Your task to perform on an android device: turn on the 12-hour format for clock Image 0: 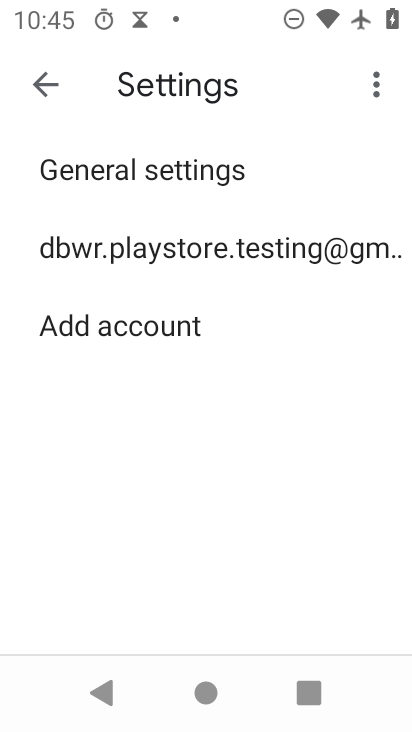
Step 0: click (46, 66)
Your task to perform on an android device: turn on the 12-hour format for clock Image 1: 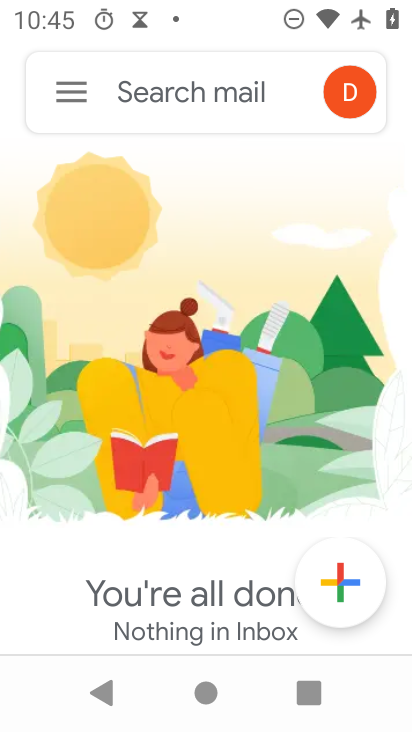
Step 1: press back button
Your task to perform on an android device: turn on the 12-hour format for clock Image 2: 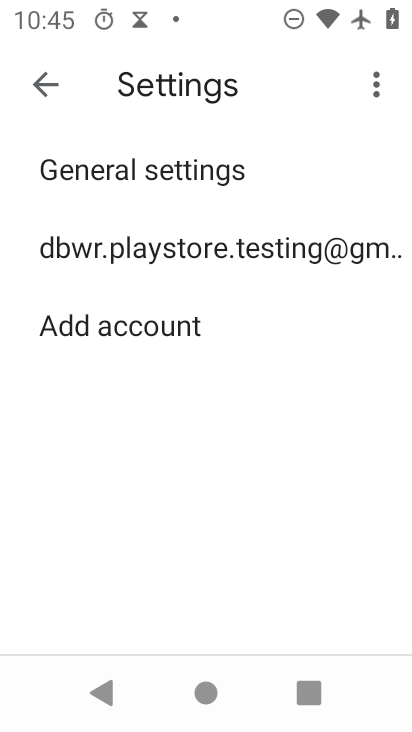
Step 2: press home button
Your task to perform on an android device: turn on the 12-hour format for clock Image 3: 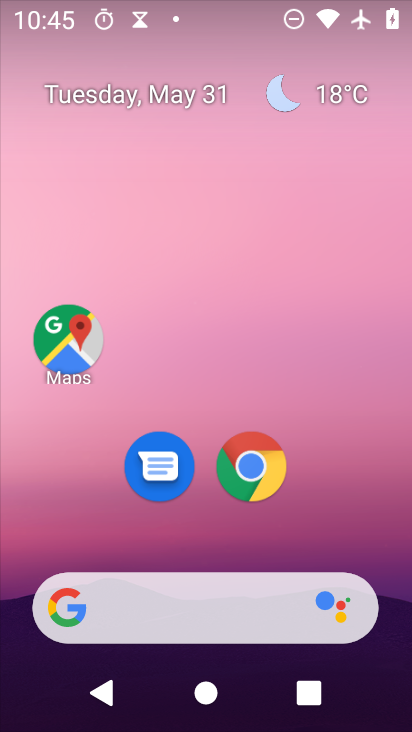
Step 3: drag from (354, 518) to (241, 10)
Your task to perform on an android device: turn on the 12-hour format for clock Image 4: 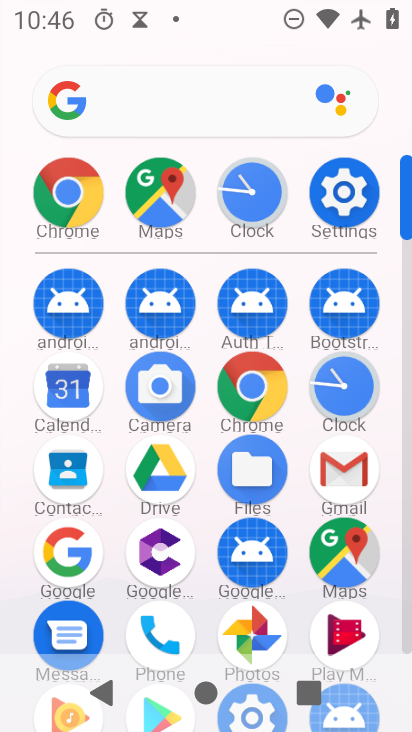
Step 4: click (249, 187)
Your task to perform on an android device: turn on the 12-hour format for clock Image 5: 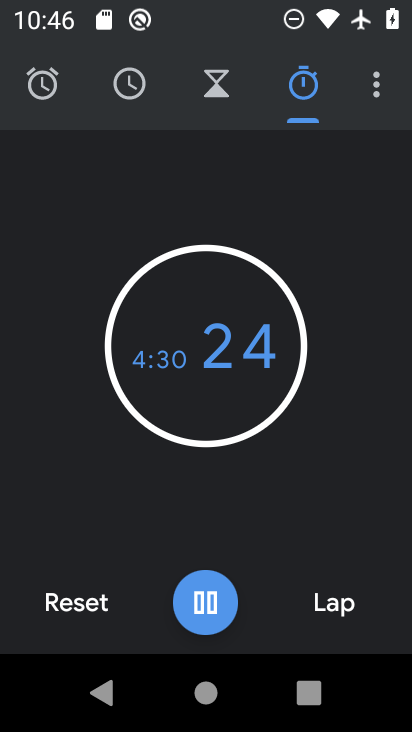
Step 5: drag from (377, 97) to (205, 152)
Your task to perform on an android device: turn on the 12-hour format for clock Image 6: 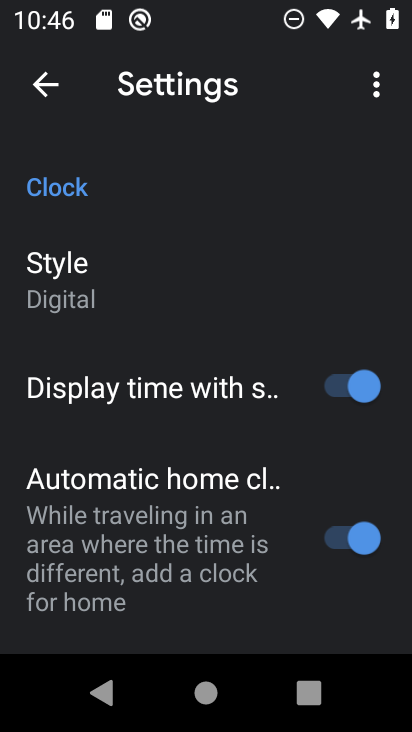
Step 6: drag from (182, 479) to (179, 172)
Your task to perform on an android device: turn on the 12-hour format for clock Image 7: 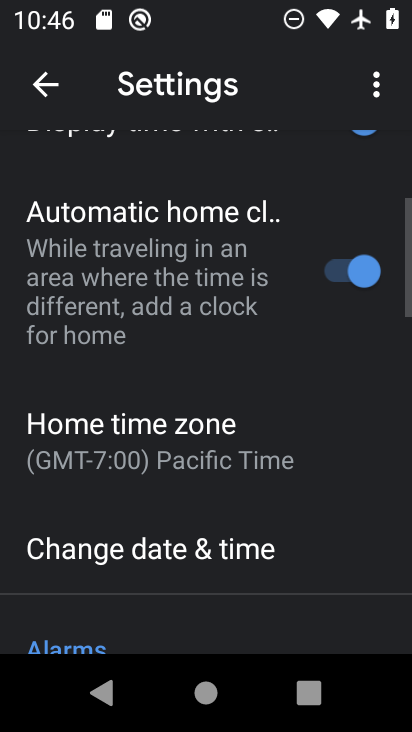
Step 7: drag from (177, 526) to (195, 169)
Your task to perform on an android device: turn on the 12-hour format for clock Image 8: 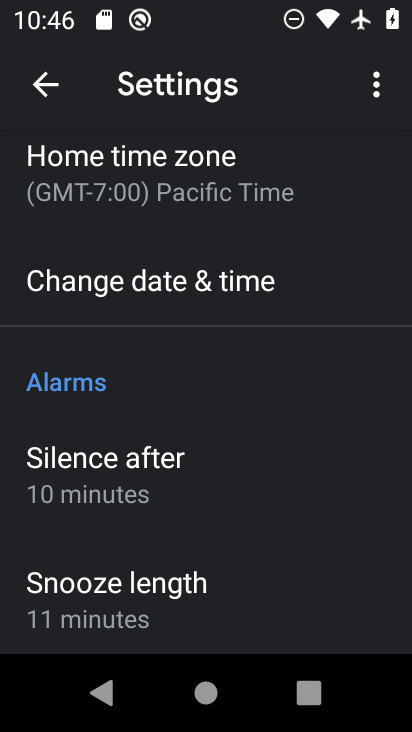
Step 8: drag from (229, 536) to (226, 179)
Your task to perform on an android device: turn on the 12-hour format for clock Image 9: 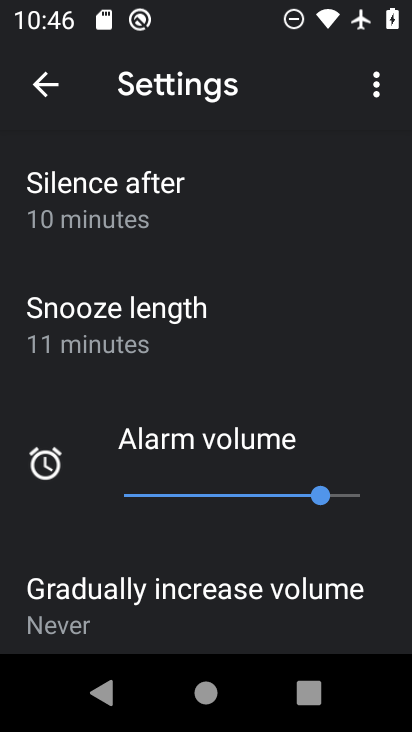
Step 9: drag from (244, 375) to (267, 110)
Your task to perform on an android device: turn on the 12-hour format for clock Image 10: 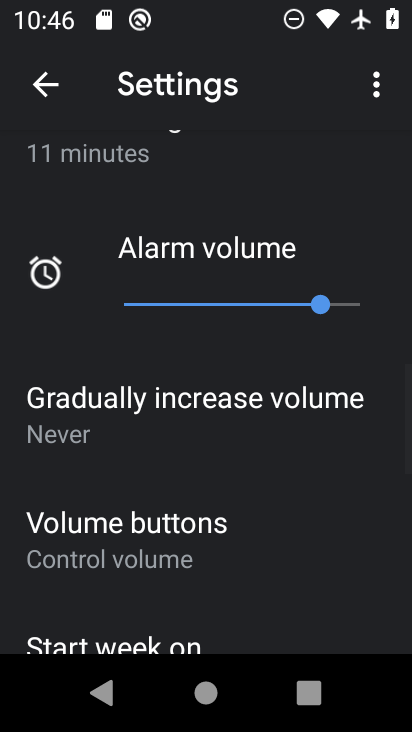
Step 10: drag from (210, 517) to (248, 137)
Your task to perform on an android device: turn on the 12-hour format for clock Image 11: 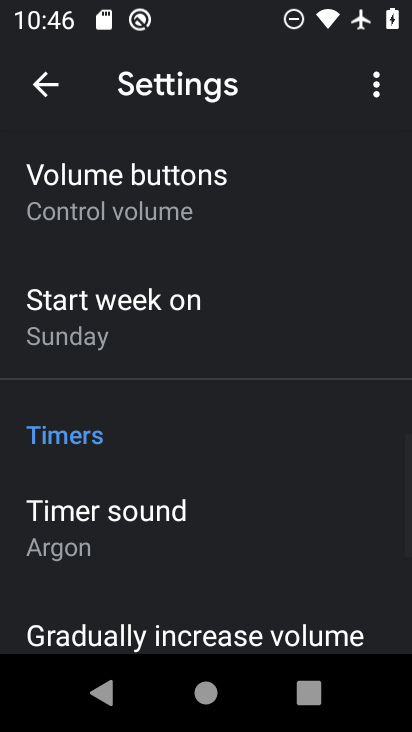
Step 11: drag from (216, 487) to (260, 217)
Your task to perform on an android device: turn on the 12-hour format for clock Image 12: 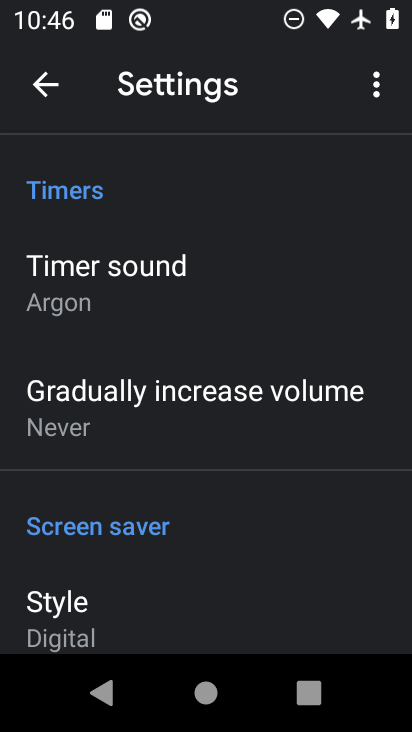
Step 12: drag from (227, 555) to (282, 204)
Your task to perform on an android device: turn on the 12-hour format for clock Image 13: 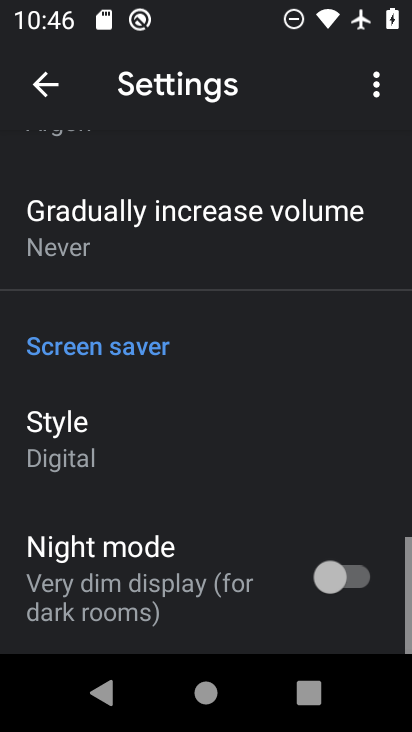
Step 13: drag from (267, 562) to (276, 212)
Your task to perform on an android device: turn on the 12-hour format for clock Image 14: 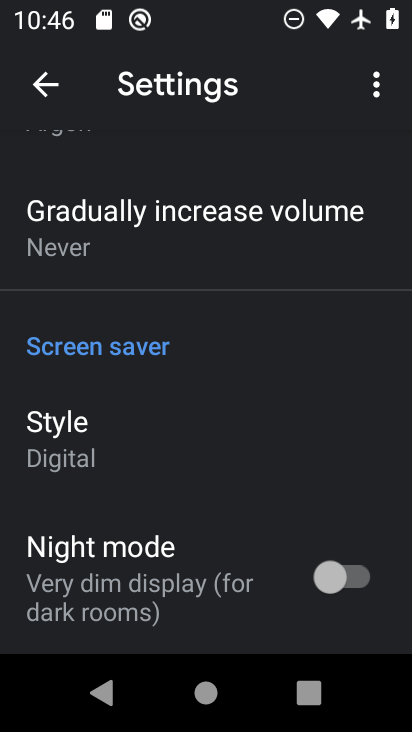
Step 14: drag from (224, 295) to (207, 617)
Your task to perform on an android device: turn on the 12-hour format for clock Image 15: 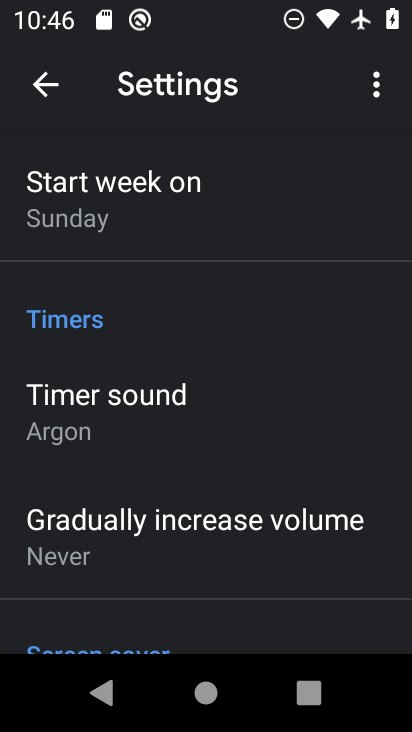
Step 15: drag from (244, 272) to (196, 579)
Your task to perform on an android device: turn on the 12-hour format for clock Image 16: 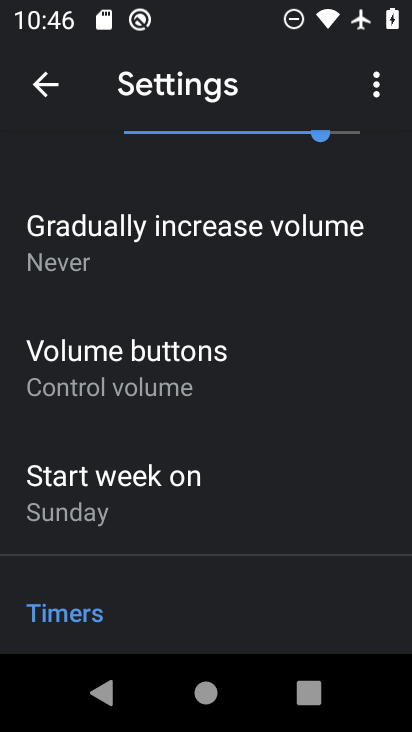
Step 16: drag from (254, 206) to (256, 559)
Your task to perform on an android device: turn on the 12-hour format for clock Image 17: 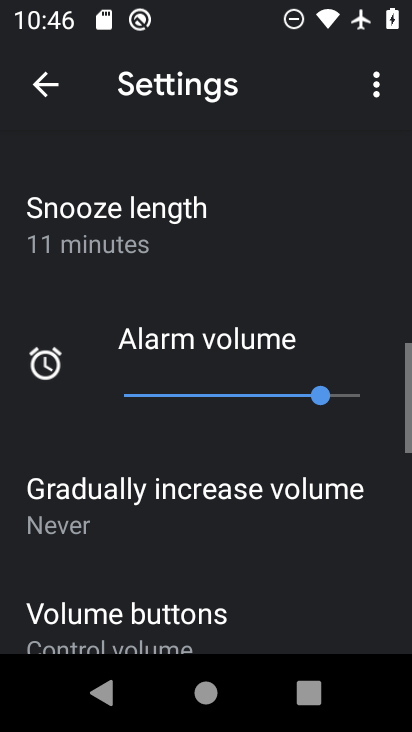
Step 17: drag from (253, 168) to (209, 518)
Your task to perform on an android device: turn on the 12-hour format for clock Image 18: 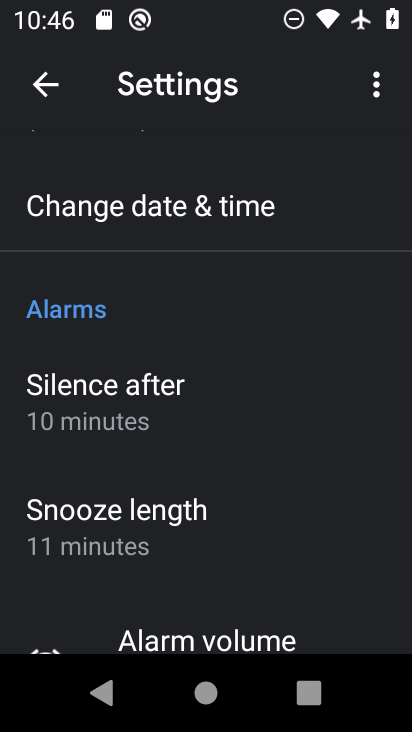
Step 18: click (244, 193)
Your task to perform on an android device: turn on the 12-hour format for clock Image 19: 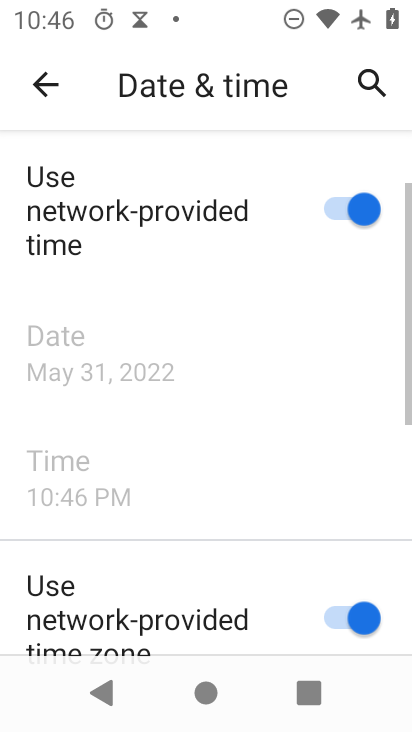
Step 19: task complete